Your task to perform on an android device: When is my next appointment? Image 0: 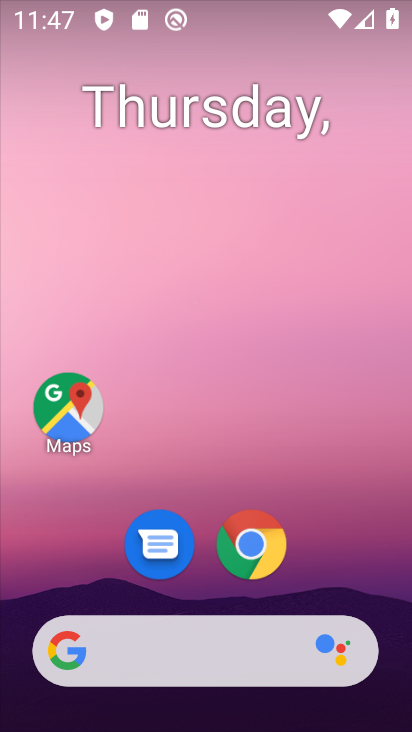
Step 0: drag from (196, 602) to (94, 121)
Your task to perform on an android device: When is my next appointment? Image 1: 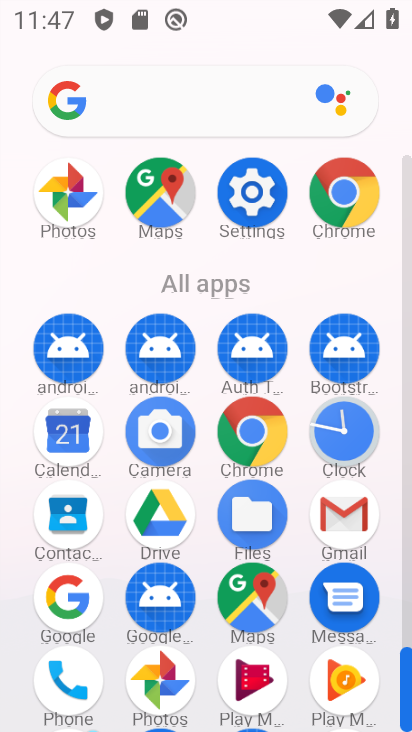
Step 1: click (61, 457)
Your task to perform on an android device: When is my next appointment? Image 2: 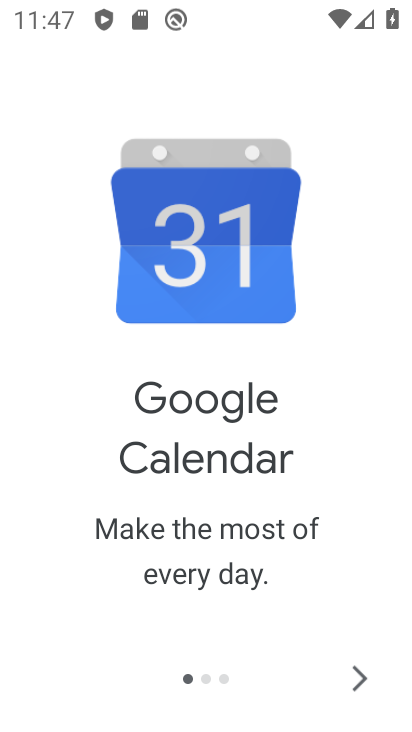
Step 2: click (342, 672)
Your task to perform on an android device: When is my next appointment? Image 3: 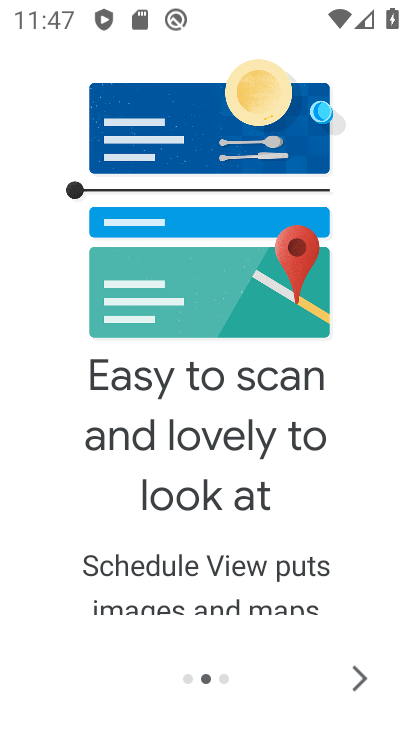
Step 3: click (342, 672)
Your task to perform on an android device: When is my next appointment? Image 4: 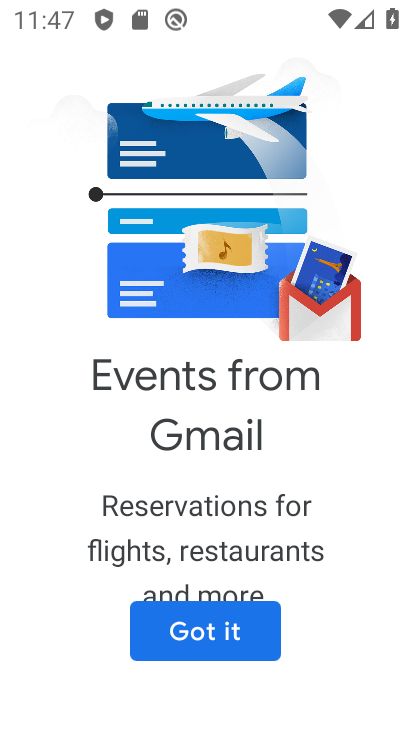
Step 4: click (261, 628)
Your task to perform on an android device: When is my next appointment? Image 5: 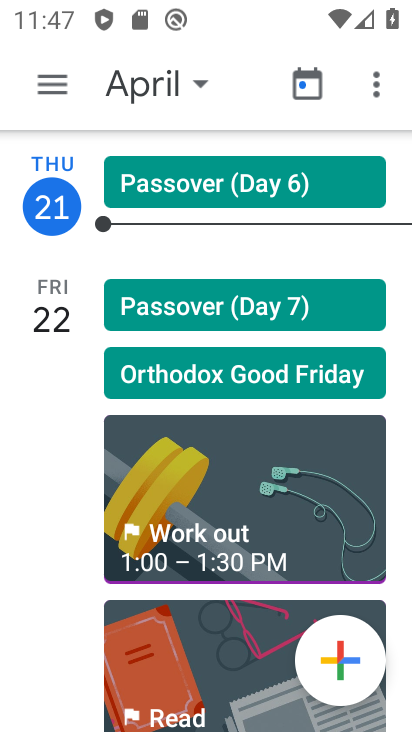
Step 5: click (64, 87)
Your task to perform on an android device: When is my next appointment? Image 6: 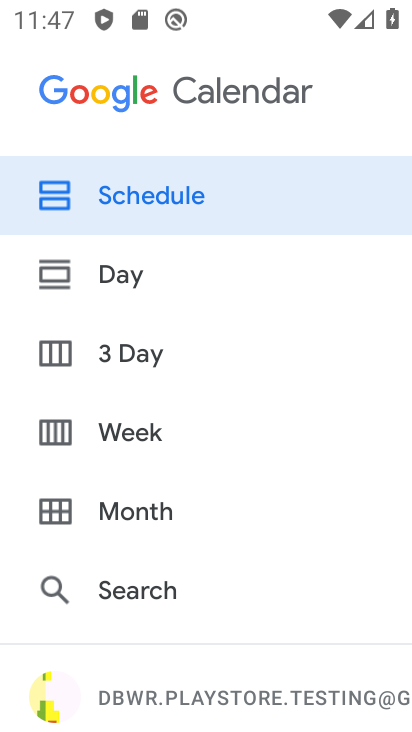
Step 6: click (147, 416)
Your task to perform on an android device: When is my next appointment? Image 7: 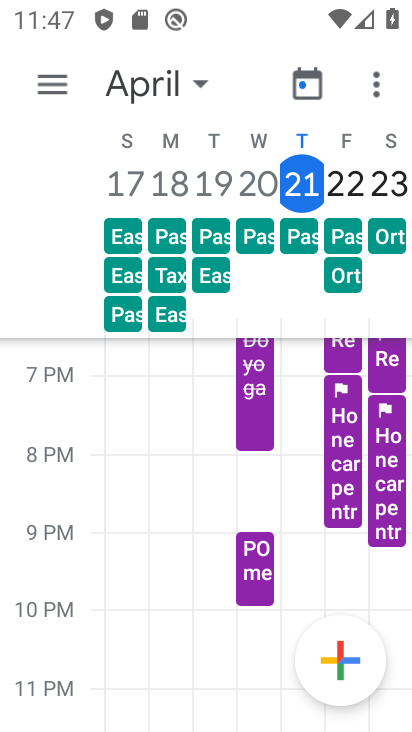
Step 7: task complete